Your task to perform on an android device: star an email in the gmail app Image 0: 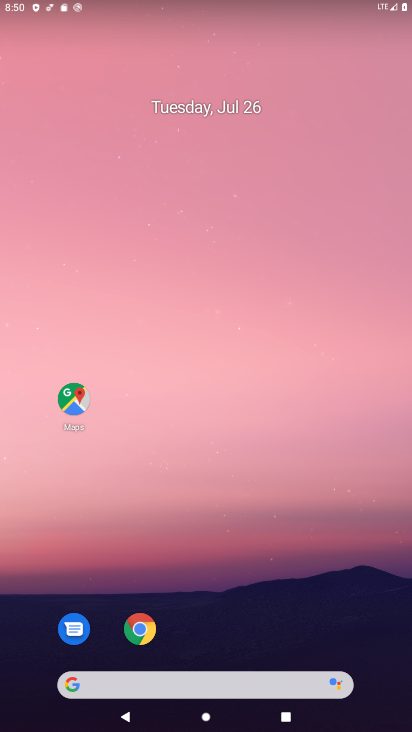
Step 0: drag from (178, 665) to (139, 94)
Your task to perform on an android device: star an email in the gmail app Image 1: 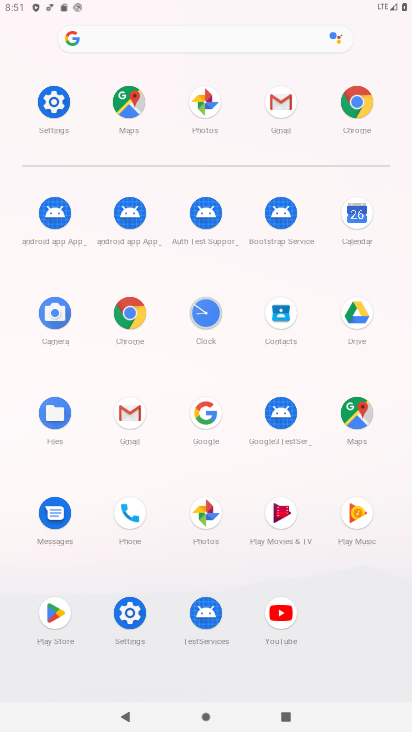
Step 1: click (136, 405)
Your task to perform on an android device: star an email in the gmail app Image 2: 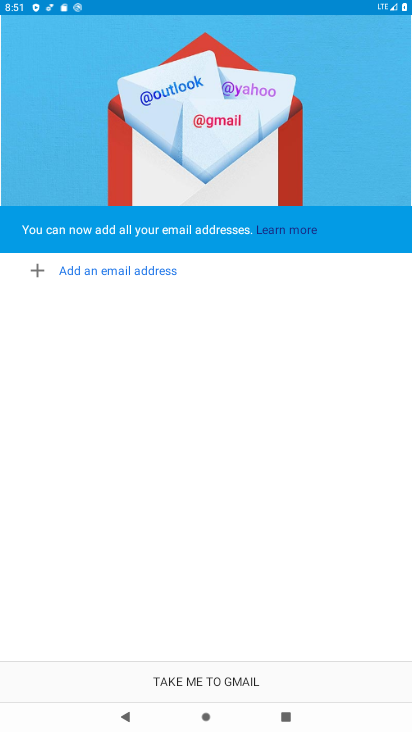
Step 2: click (218, 674)
Your task to perform on an android device: star an email in the gmail app Image 3: 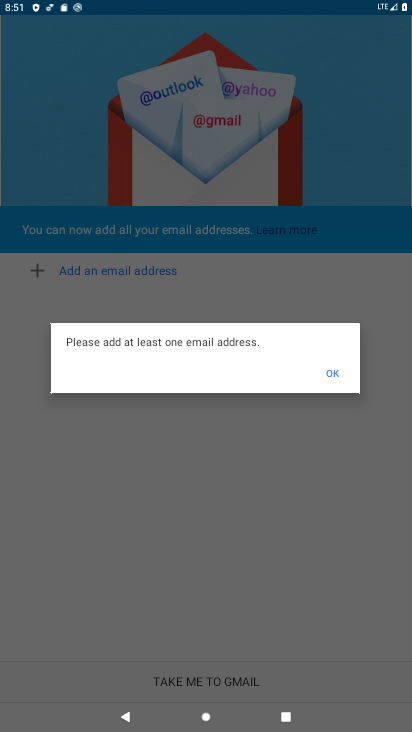
Step 3: task complete